Your task to perform on an android device: open device folders in google photos Image 0: 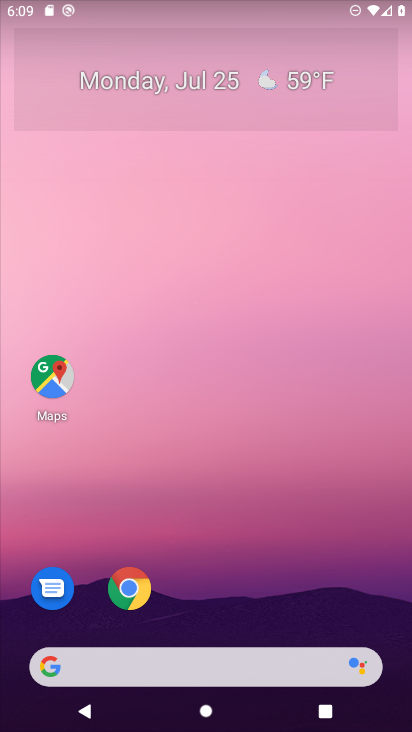
Step 0: task complete